Your task to perform on an android device: turn on wifi Image 0: 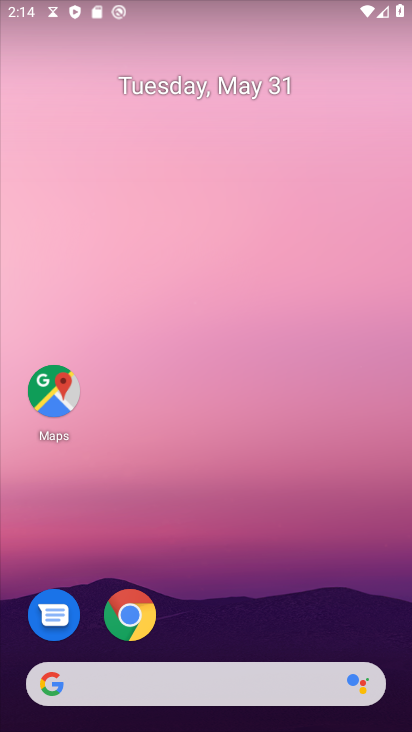
Step 0: drag from (263, 372) to (227, 131)
Your task to perform on an android device: turn on wifi Image 1: 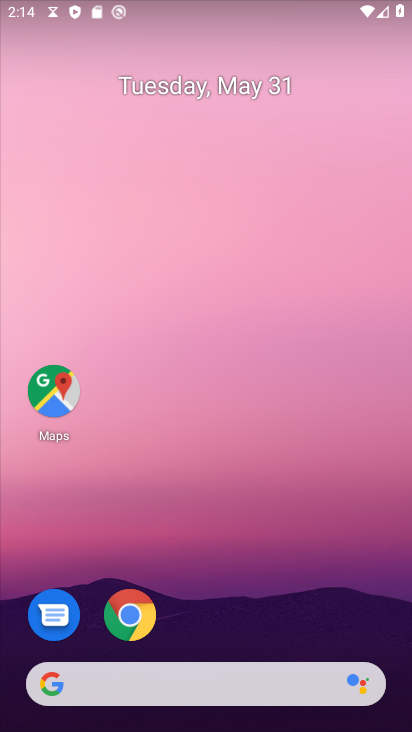
Step 1: drag from (167, 635) to (159, 159)
Your task to perform on an android device: turn on wifi Image 2: 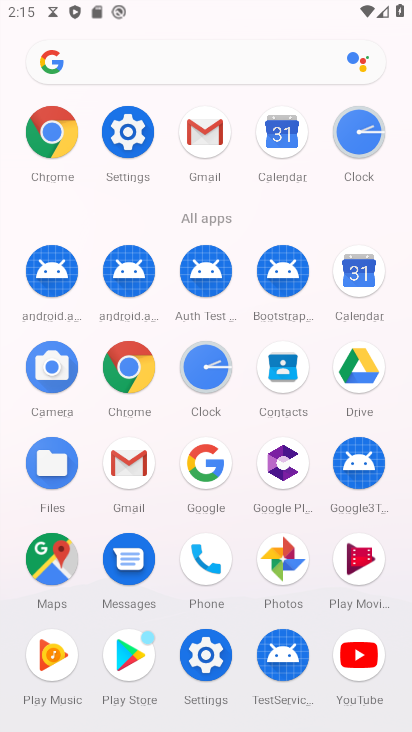
Step 2: click (109, 117)
Your task to perform on an android device: turn on wifi Image 3: 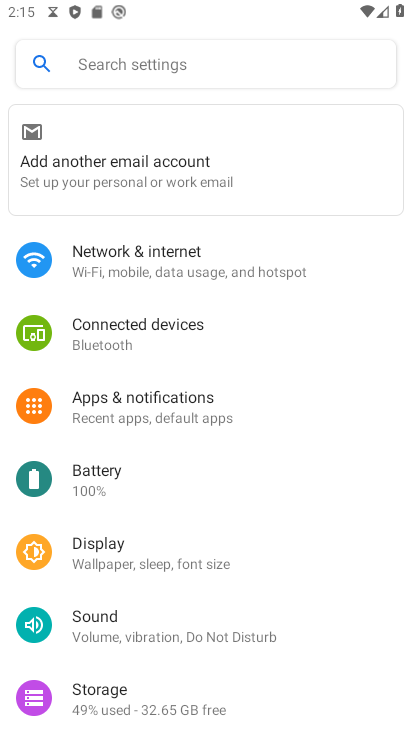
Step 3: click (158, 264)
Your task to perform on an android device: turn on wifi Image 4: 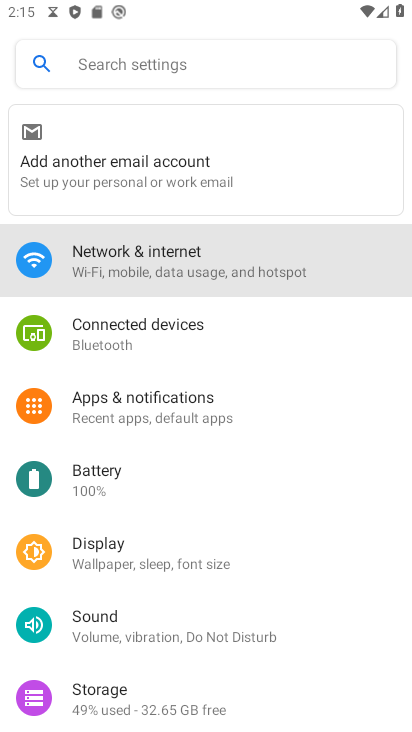
Step 4: click (164, 258)
Your task to perform on an android device: turn on wifi Image 5: 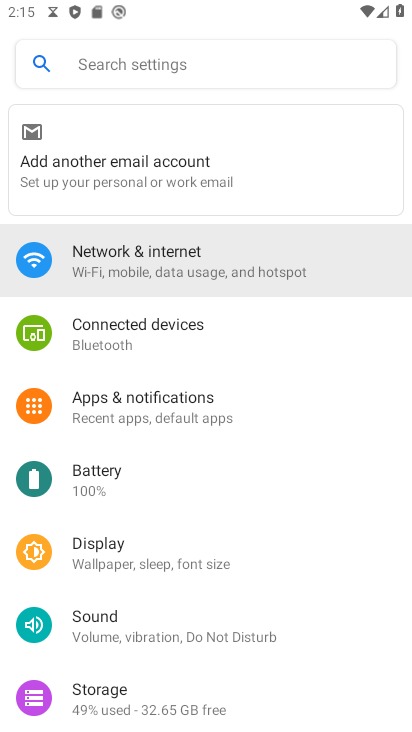
Step 5: click (167, 257)
Your task to perform on an android device: turn on wifi Image 6: 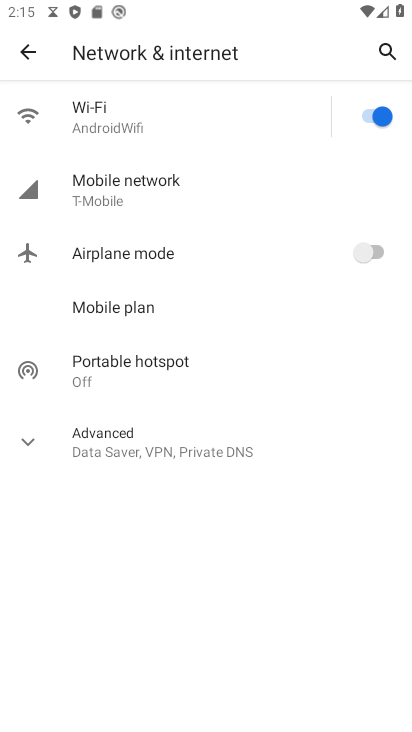
Step 6: task complete